Your task to perform on an android device: move an email to a new category in the gmail app Image 0: 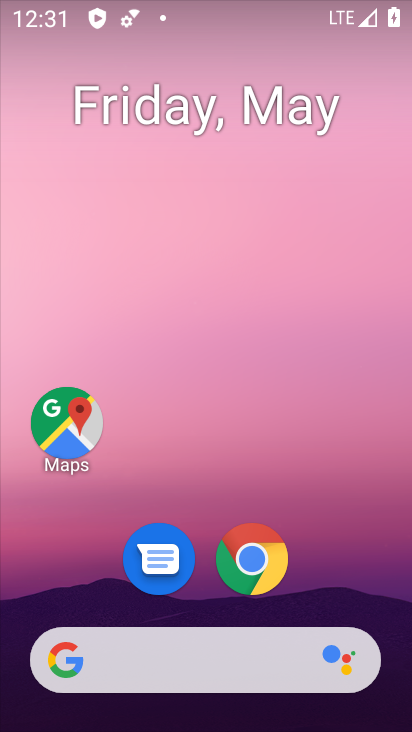
Step 0: drag from (322, 444) to (313, 154)
Your task to perform on an android device: move an email to a new category in the gmail app Image 1: 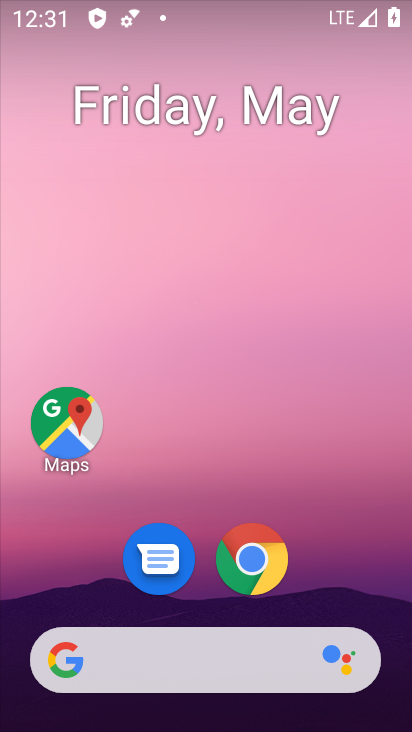
Step 1: drag from (329, 519) to (273, 66)
Your task to perform on an android device: move an email to a new category in the gmail app Image 2: 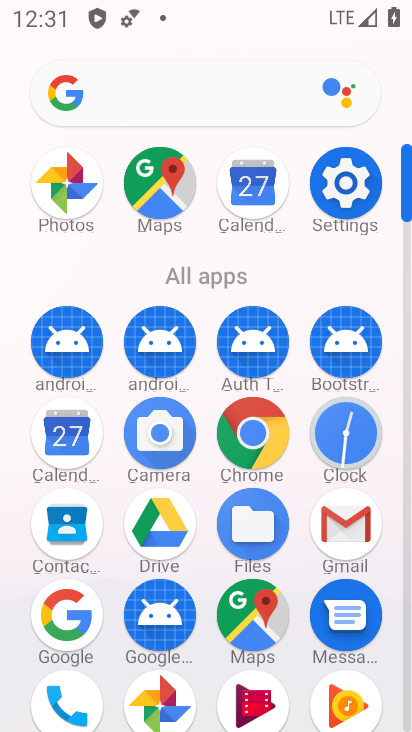
Step 2: click (356, 521)
Your task to perform on an android device: move an email to a new category in the gmail app Image 3: 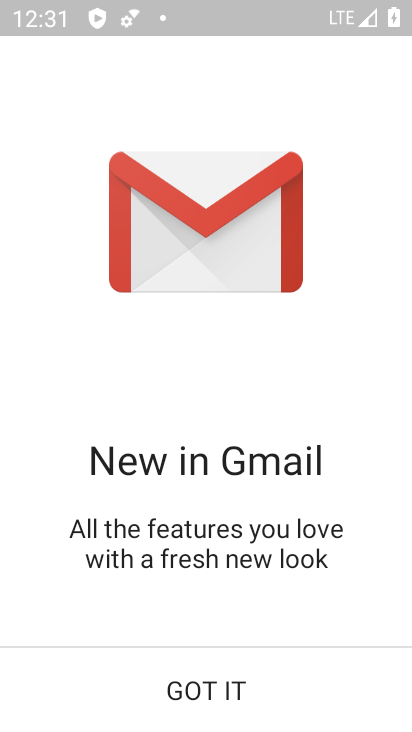
Step 3: click (272, 679)
Your task to perform on an android device: move an email to a new category in the gmail app Image 4: 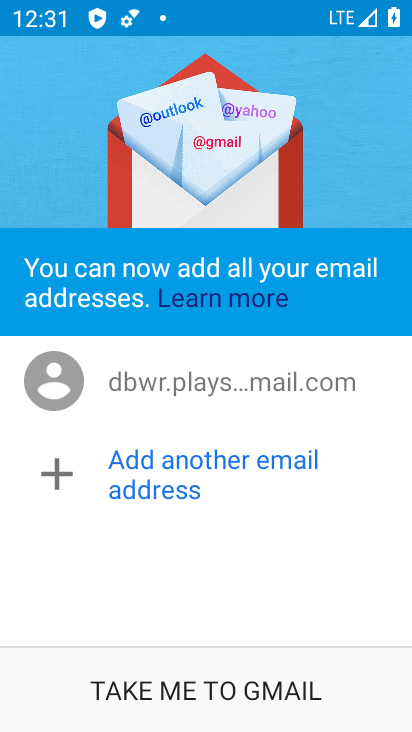
Step 4: click (271, 679)
Your task to perform on an android device: move an email to a new category in the gmail app Image 5: 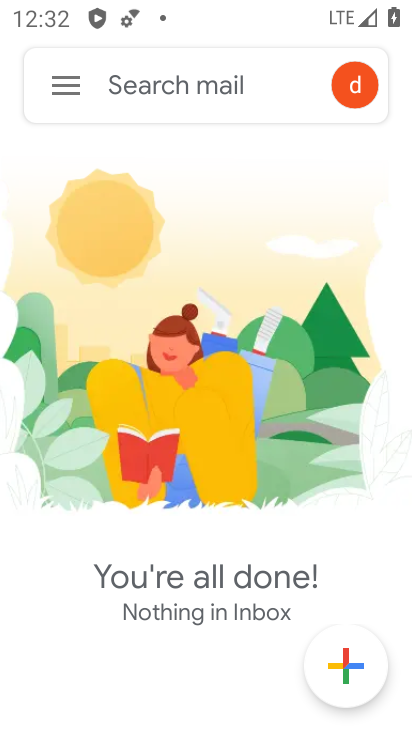
Step 5: click (55, 78)
Your task to perform on an android device: move an email to a new category in the gmail app Image 6: 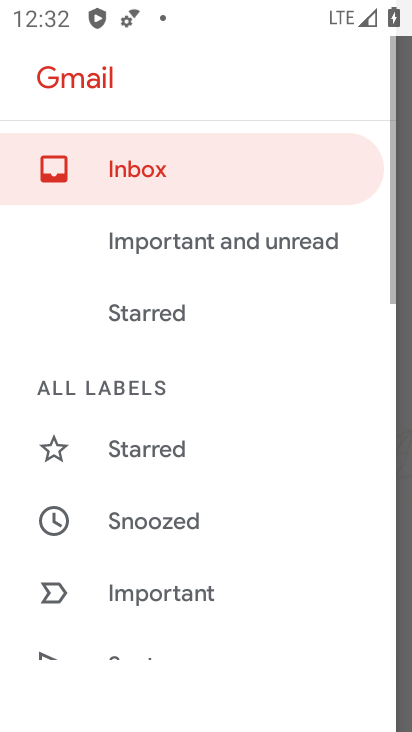
Step 6: drag from (227, 424) to (256, 89)
Your task to perform on an android device: move an email to a new category in the gmail app Image 7: 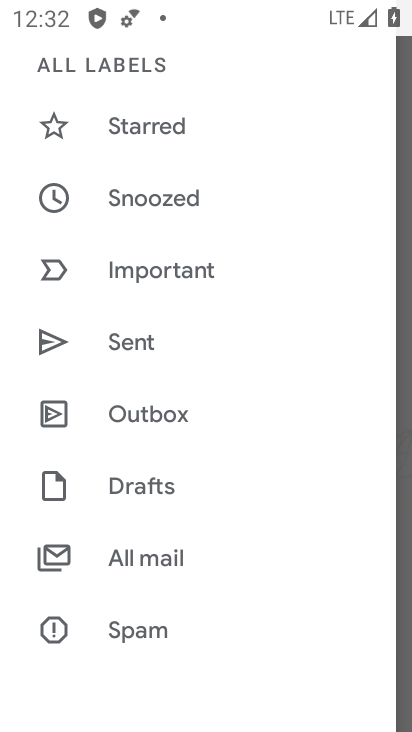
Step 7: click (159, 547)
Your task to perform on an android device: move an email to a new category in the gmail app Image 8: 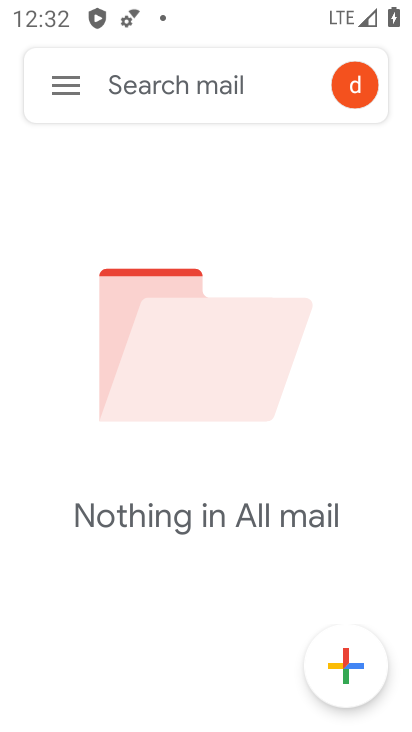
Step 8: task complete